Your task to perform on an android device: turn pop-ups off in chrome Image 0: 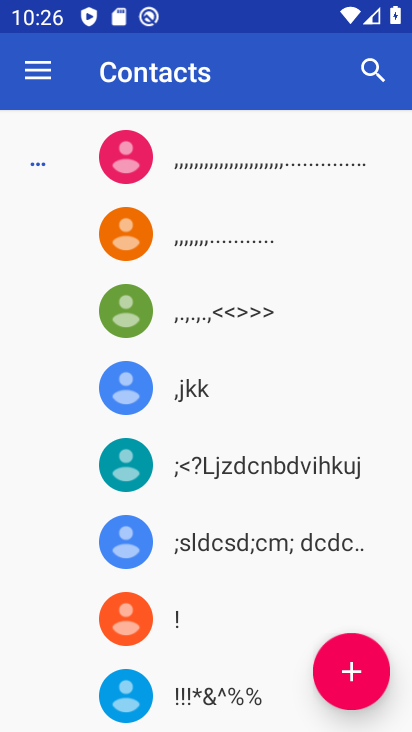
Step 0: press home button
Your task to perform on an android device: turn pop-ups off in chrome Image 1: 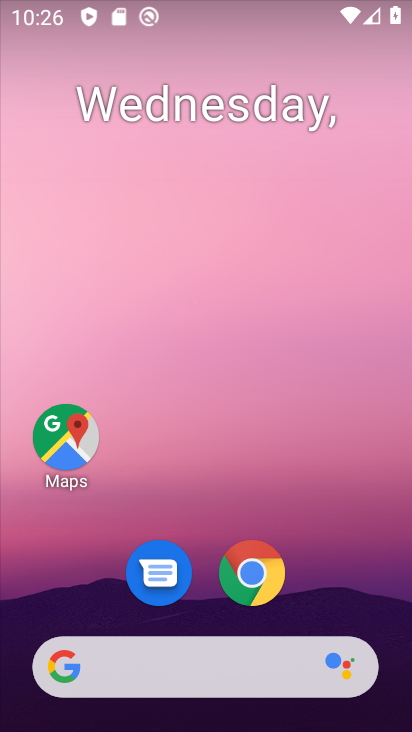
Step 1: click (250, 564)
Your task to perform on an android device: turn pop-ups off in chrome Image 2: 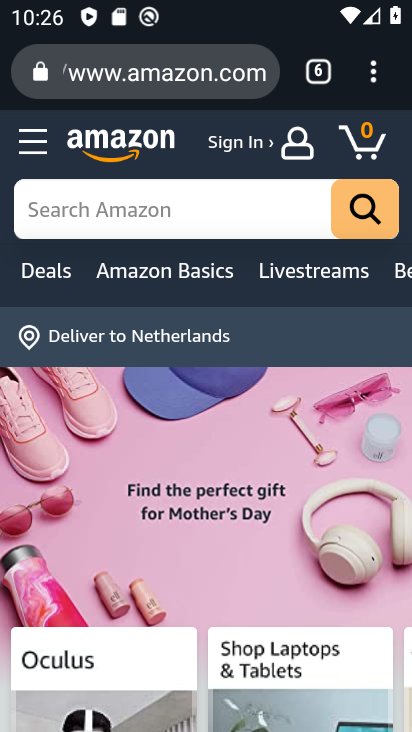
Step 2: click (370, 67)
Your task to perform on an android device: turn pop-ups off in chrome Image 3: 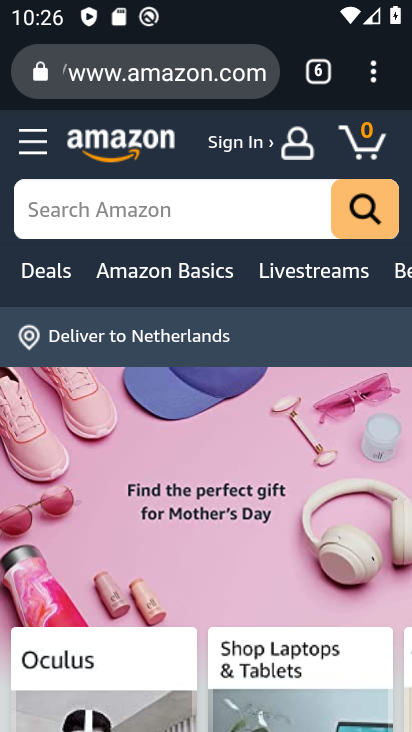
Step 3: click (373, 67)
Your task to perform on an android device: turn pop-ups off in chrome Image 4: 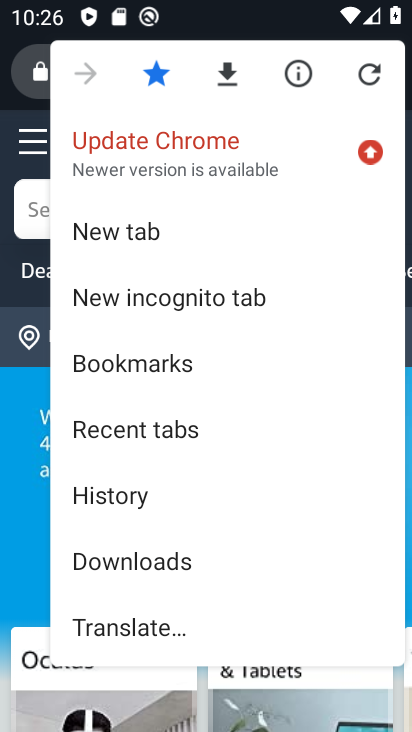
Step 4: drag from (305, 418) to (306, 293)
Your task to perform on an android device: turn pop-ups off in chrome Image 5: 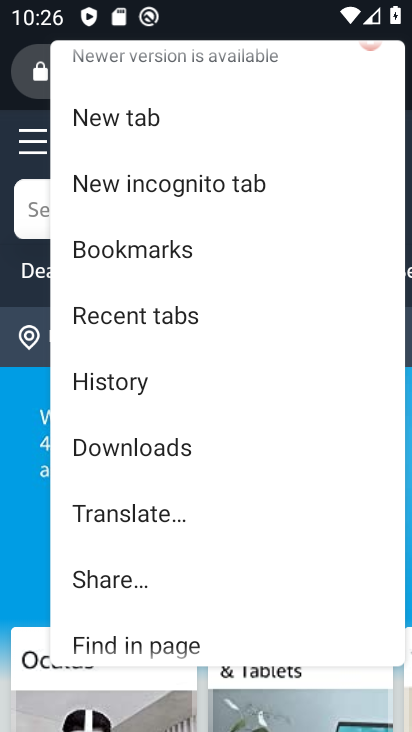
Step 5: drag from (274, 393) to (265, 301)
Your task to perform on an android device: turn pop-ups off in chrome Image 6: 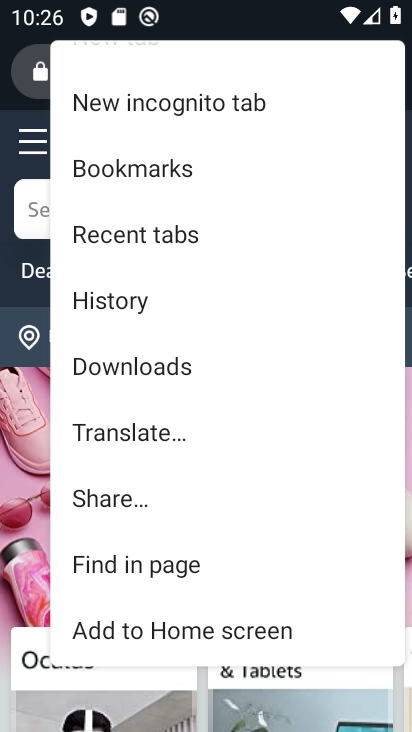
Step 6: drag from (314, 591) to (329, 297)
Your task to perform on an android device: turn pop-ups off in chrome Image 7: 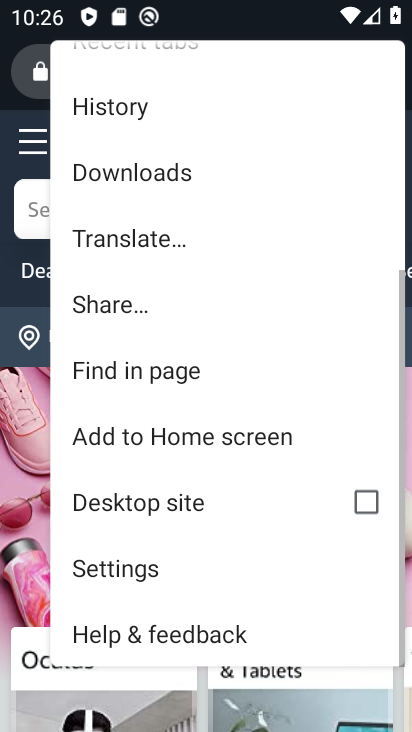
Step 7: drag from (341, 604) to (315, 148)
Your task to perform on an android device: turn pop-ups off in chrome Image 8: 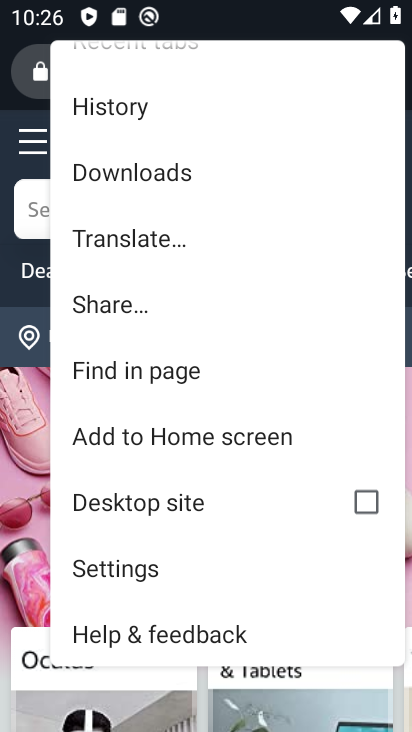
Step 8: drag from (295, 436) to (286, 271)
Your task to perform on an android device: turn pop-ups off in chrome Image 9: 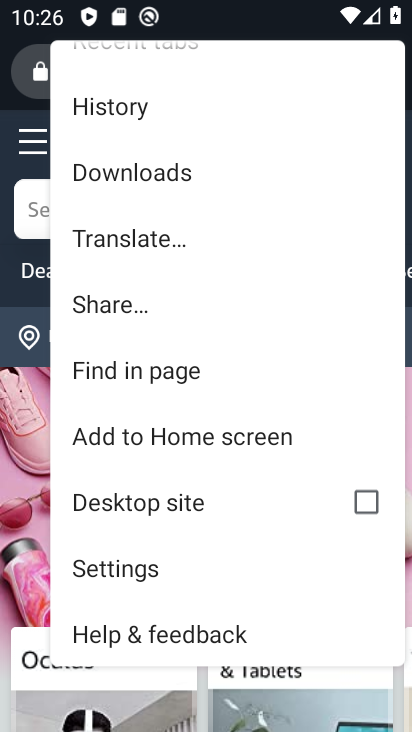
Step 9: click (132, 566)
Your task to perform on an android device: turn pop-ups off in chrome Image 10: 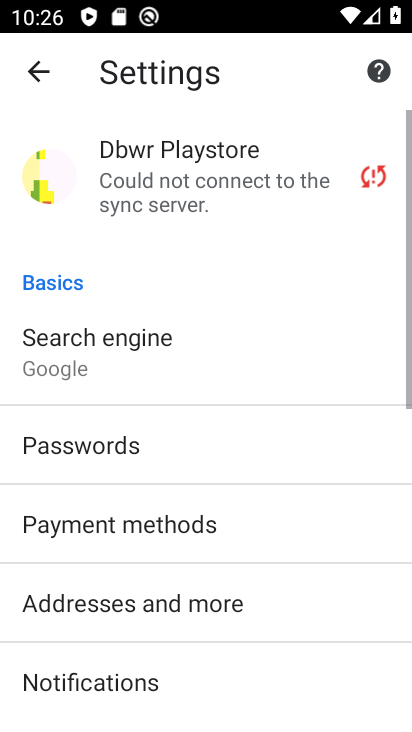
Step 10: drag from (316, 497) to (314, 270)
Your task to perform on an android device: turn pop-ups off in chrome Image 11: 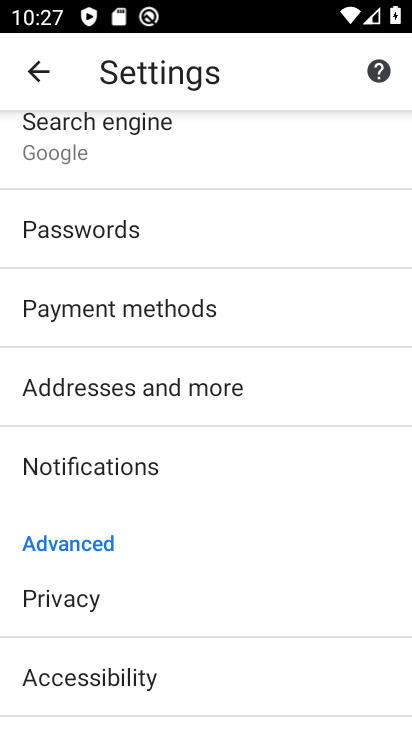
Step 11: drag from (310, 560) to (298, 247)
Your task to perform on an android device: turn pop-ups off in chrome Image 12: 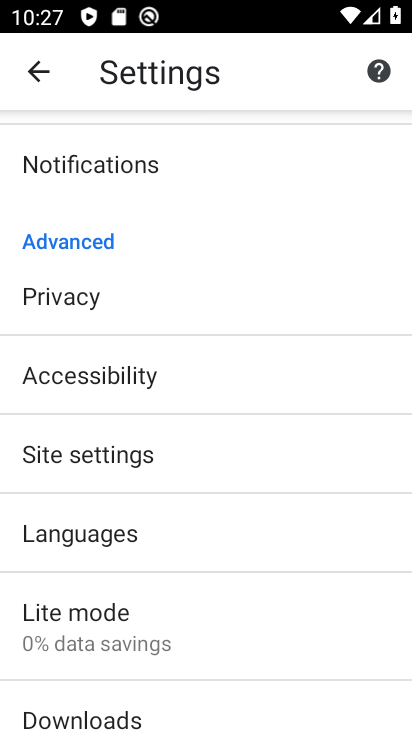
Step 12: click (63, 460)
Your task to perform on an android device: turn pop-ups off in chrome Image 13: 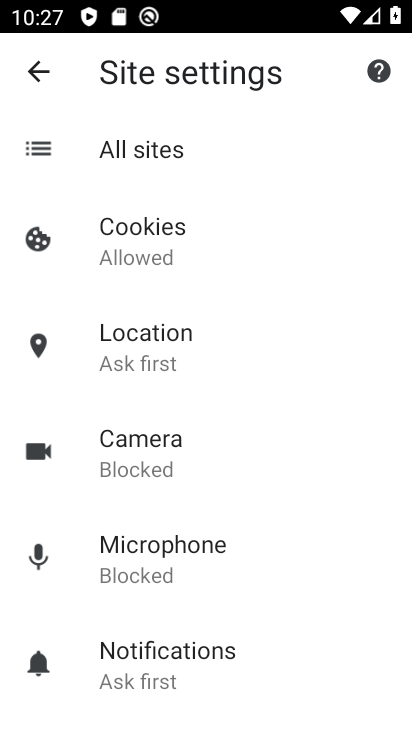
Step 13: drag from (279, 569) to (277, 331)
Your task to perform on an android device: turn pop-ups off in chrome Image 14: 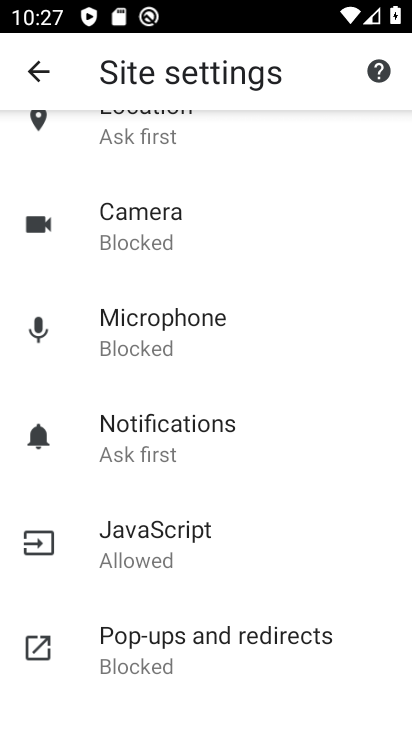
Step 14: click (150, 629)
Your task to perform on an android device: turn pop-ups off in chrome Image 15: 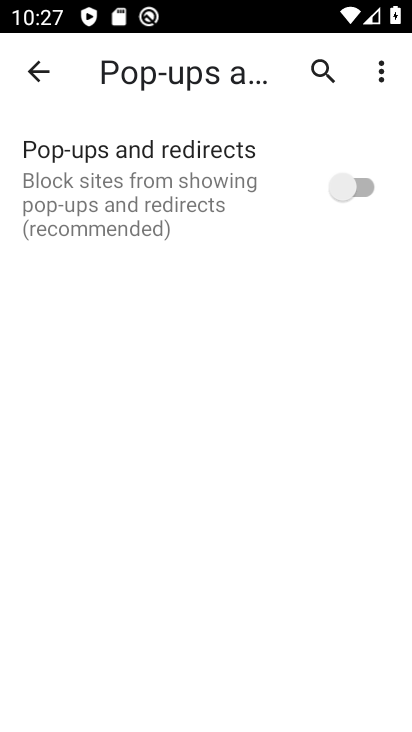
Step 15: task complete